Your task to perform on an android device: Search for Italian restaurants on Maps Image 0: 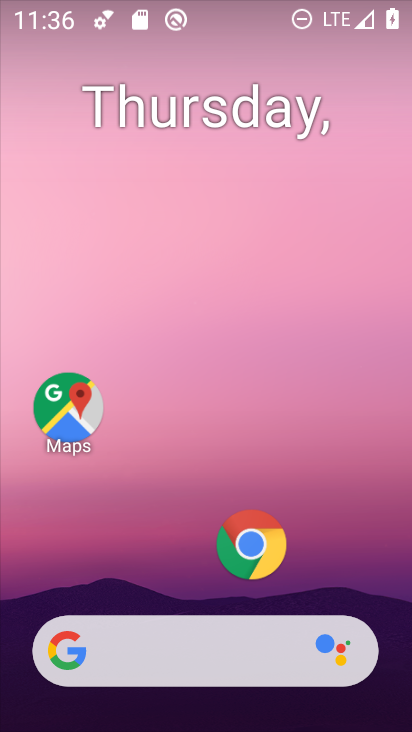
Step 0: click (87, 423)
Your task to perform on an android device: Search for Italian restaurants on Maps Image 1: 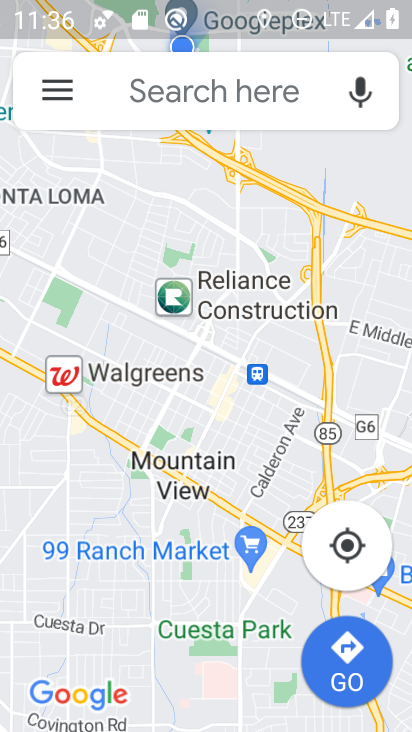
Step 1: click (203, 92)
Your task to perform on an android device: Search for Italian restaurants on Maps Image 2: 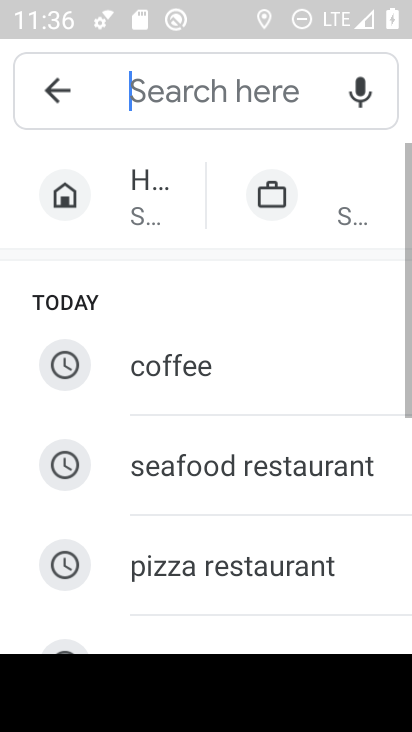
Step 2: drag from (282, 551) to (230, 214)
Your task to perform on an android device: Search for Italian restaurants on Maps Image 3: 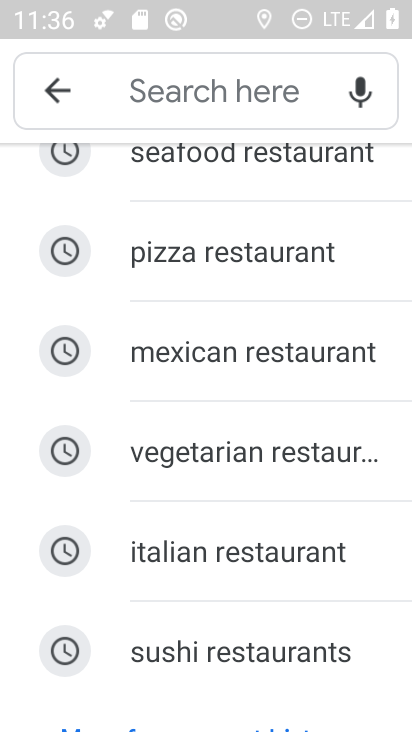
Step 3: click (232, 528)
Your task to perform on an android device: Search for Italian restaurants on Maps Image 4: 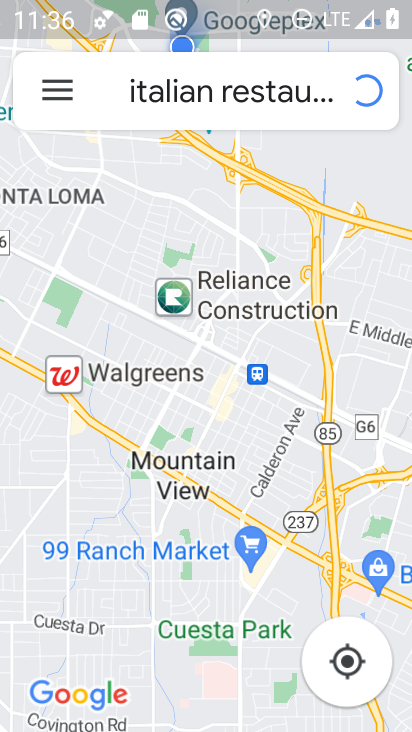
Step 4: task complete